Your task to perform on an android device: find snoozed emails in the gmail app Image 0: 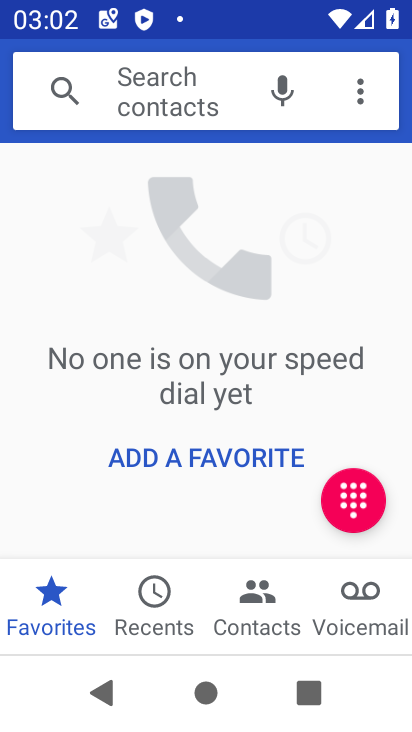
Step 0: press home button
Your task to perform on an android device: find snoozed emails in the gmail app Image 1: 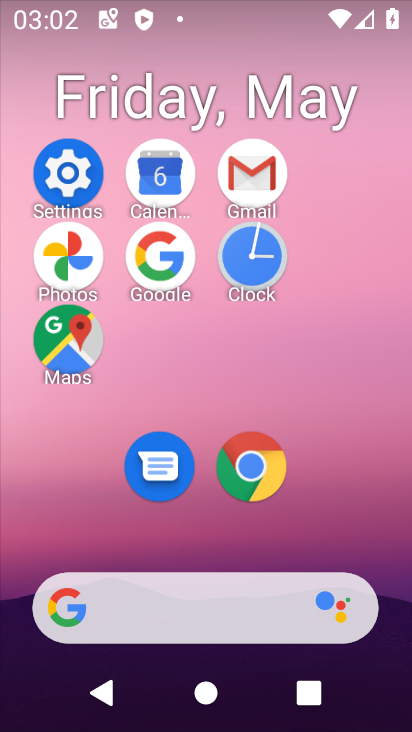
Step 1: click (275, 175)
Your task to perform on an android device: find snoozed emails in the gmail app Image 2: 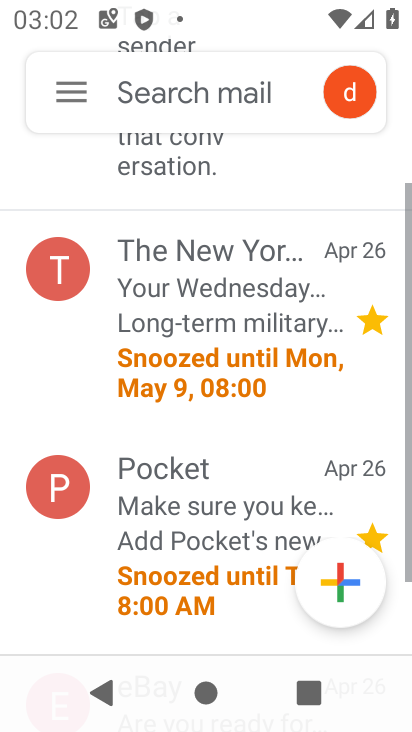
Step 2: click (82, 91)
Your task to perform on an android device: find snoozed emails in the gmail app Image 3: 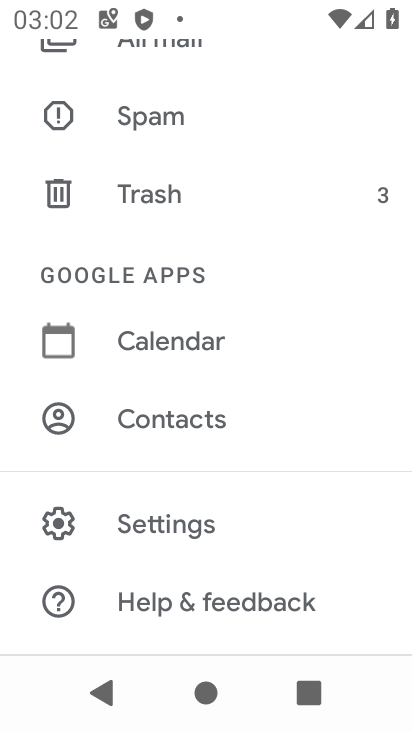
Step 3: drag from (289, 147) to (329, 581)
Your task to perform on an android device: find snoozed emails in the gmail app Image 4: 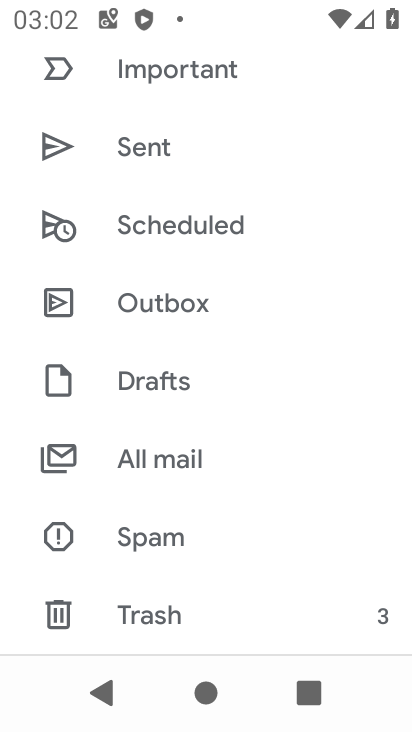
Step 4: drag from (248, 159) to (265, 588)
Your task to perform on an android device: find snoozed emails in the gmail app Image 5: 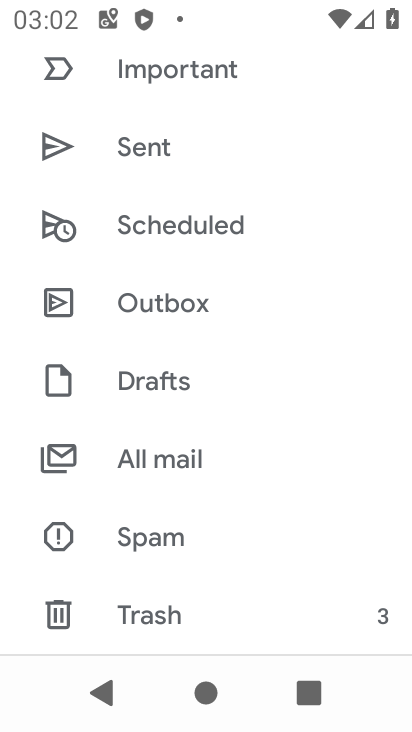
Step 5: drag from (242, 150) to (338, 553)
Your task to perform on an android device: find snoozed emails in the gmail app Image 6: 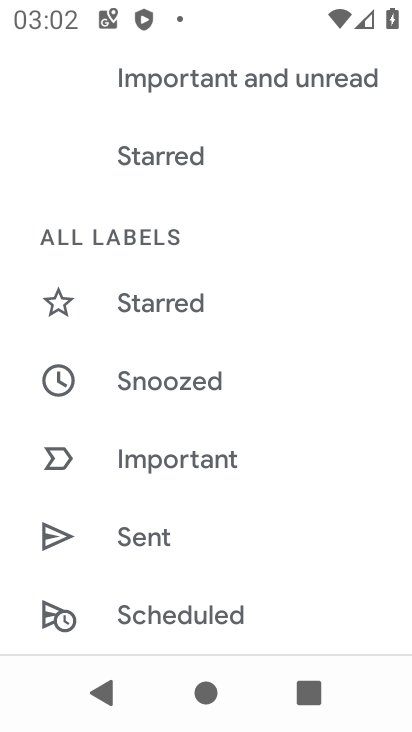
Step 6: drag from (295, 204) to (259, 345)
Your task to perform on an android device: find snoozed emails in the gmail app Image 7: 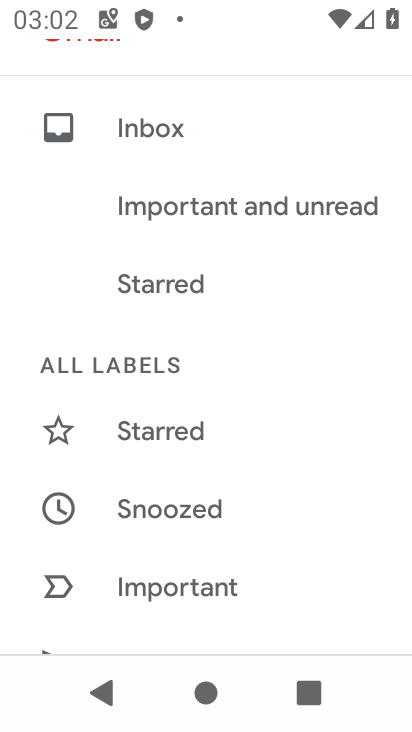
Step 7: click (217, 498)
Your task to perform on an android device: find snoozed emails in the gmail app Image 8: 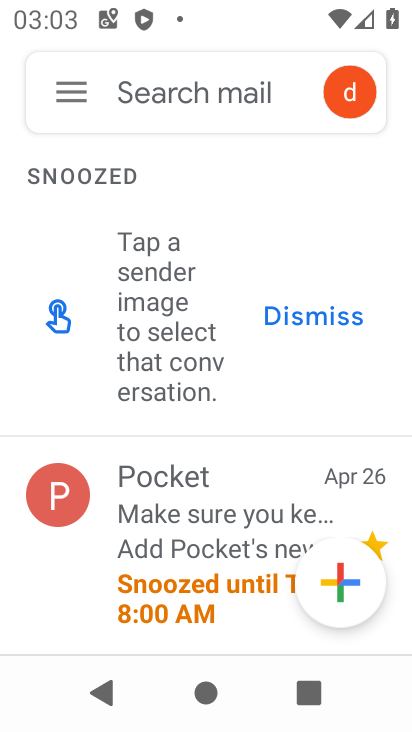
Step 8: task complete